Your task to perform on an android device: check battery use Image 0: 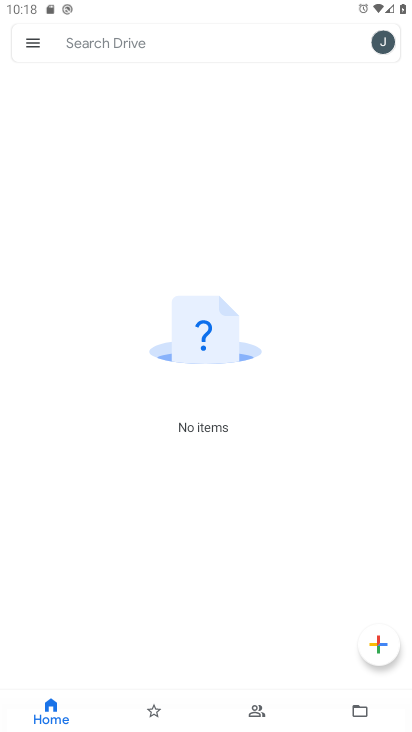
Step 0: press home button
Your task to perform on an android device: check battery use Image 1: 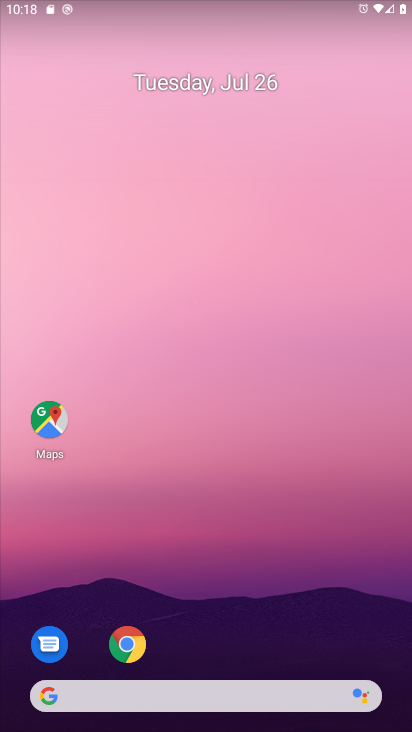
Step 1: drag from (209, 606) to (209, 194)
Your task to perform on an android device: check battery use Image 2: 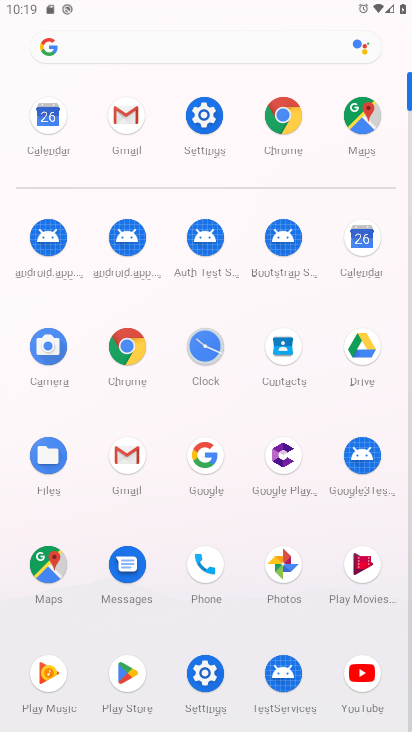
Step 2: click (209, 672)
Your task to perform on an android device: check battery use Image 3: 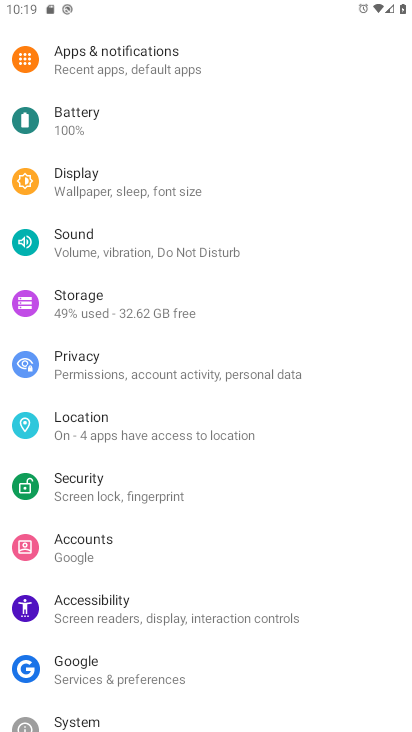
Step 3: click (99, 121)
Your task to perform on an android device: check battery use Image 4: 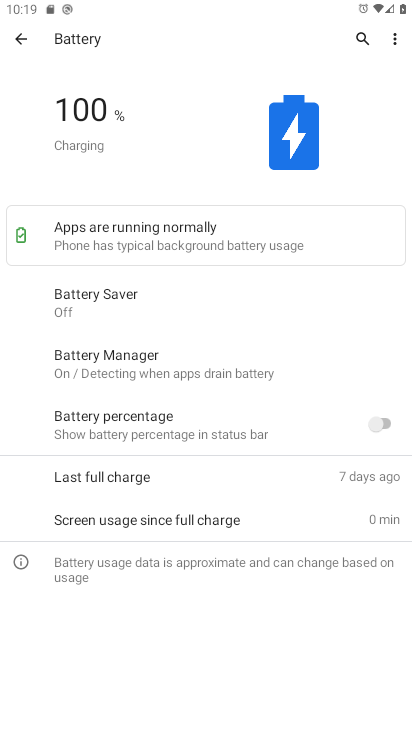
Step 4: click (401, 42)
Your task to perform on an android device: check battery use Image 5: 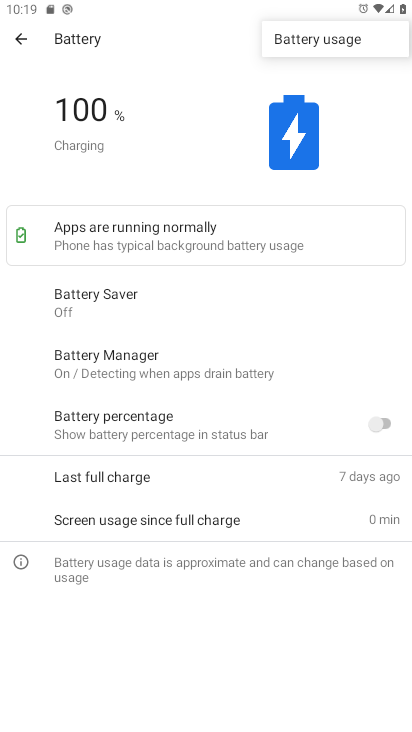
Step 5: click (359, 36)
Your task to perform on an android device: check battery use Image 6: 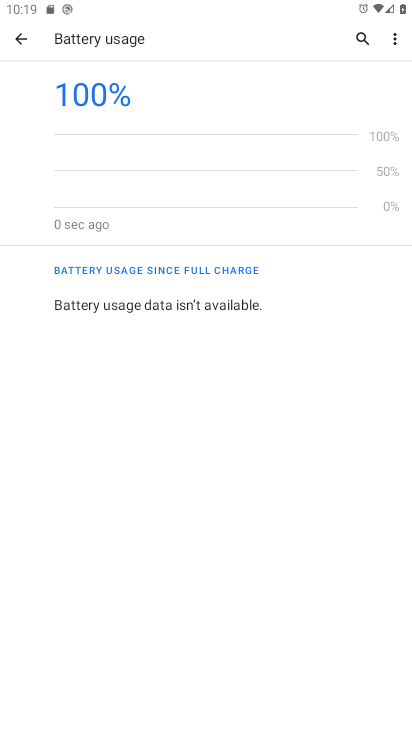
Step 6: task complete